Your task to perform on an android device: What's on my calendar today? Image 0: 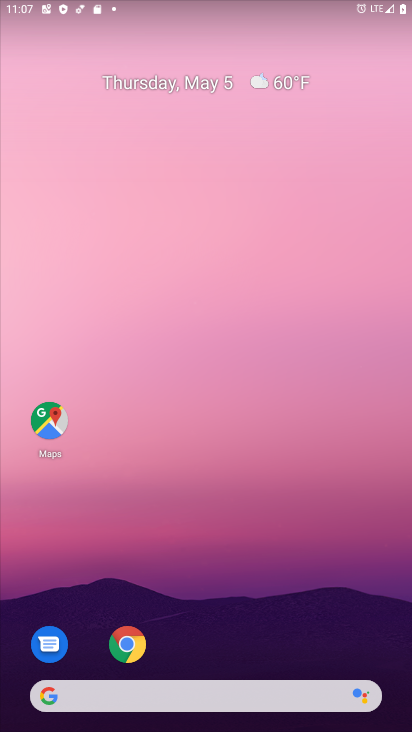
Step 0: drag from (215, 634) to (224, 192)
Your task to perform on an android device: What's on my calendar today? Image 1: 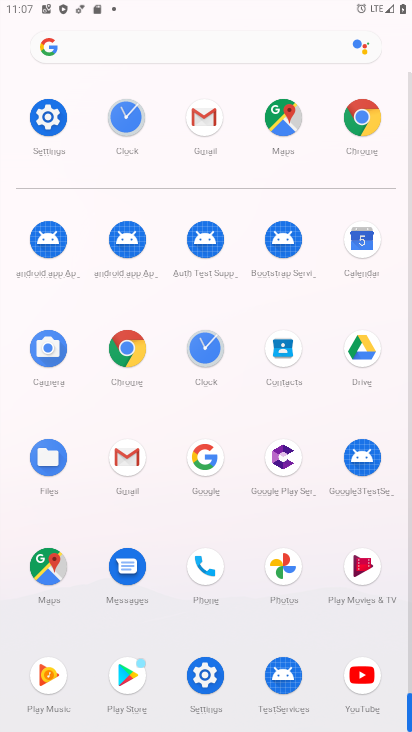
Step 1: click (363, 252)
Your task to perform on an android device: What's on my calendar today? Image 2: 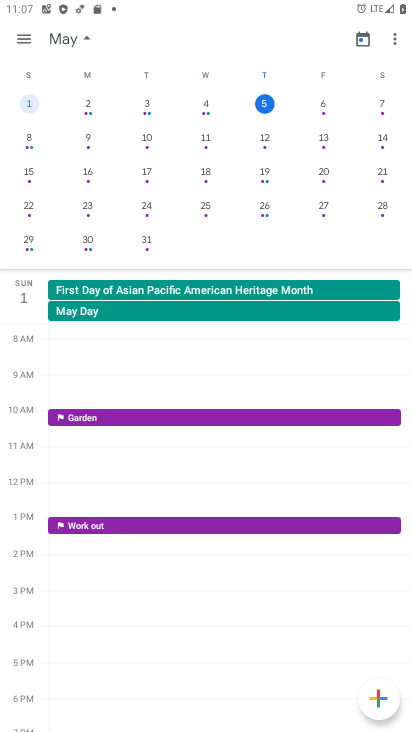
Step 2: click (267, 102)
Your task to perform on an android device: What's on my calendar today? Image 3: 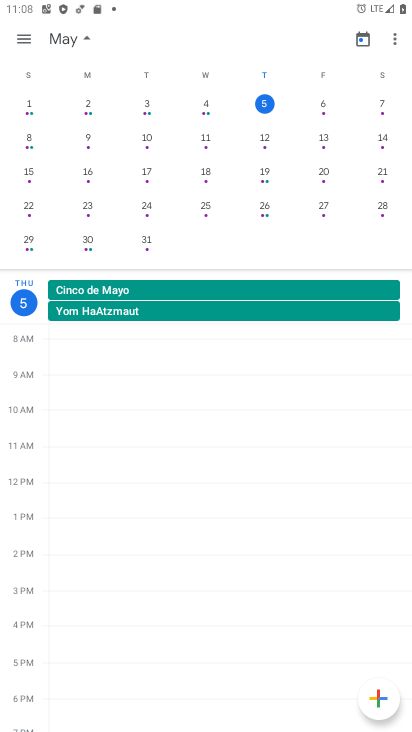
Step 3: task complete